Your task to perform on an android device: move a message to another label in the gmail app Image 0: 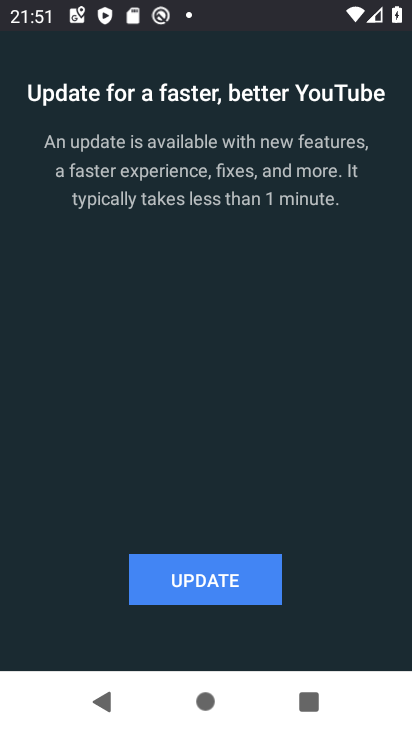
Step 0: press home button
Your task to perform on an android device: move a message to another label in the gmail app Image 1: 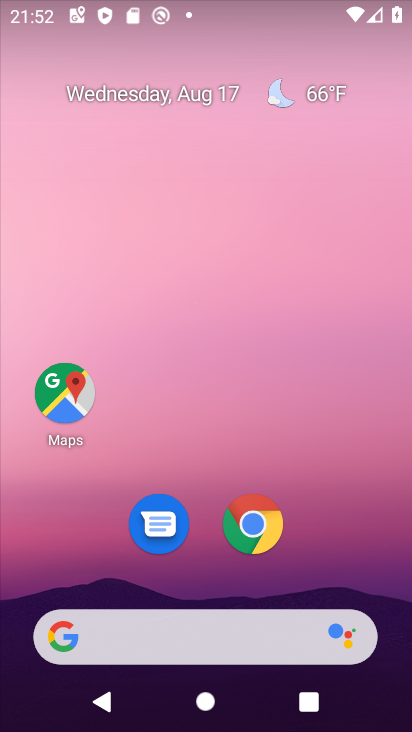
Step 1: drag from (326, 522) to (324, 0)
Your task to perform on an android device: move a message to another label in the gmail app Image 2: 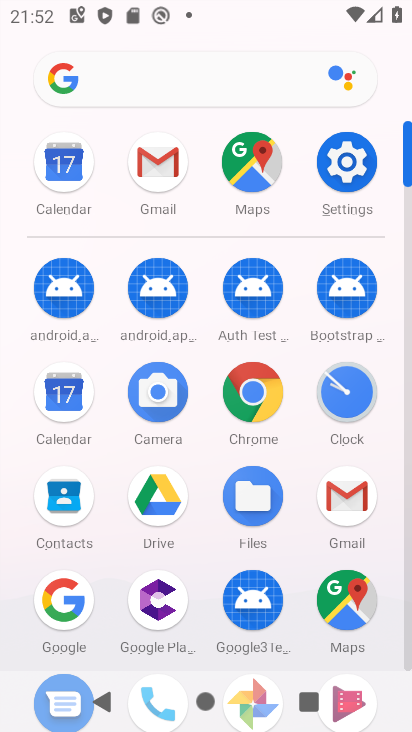
Step 2: click (165, 167)
Your task to perform on an android device: move a message to another label in the gmail app Image 3: 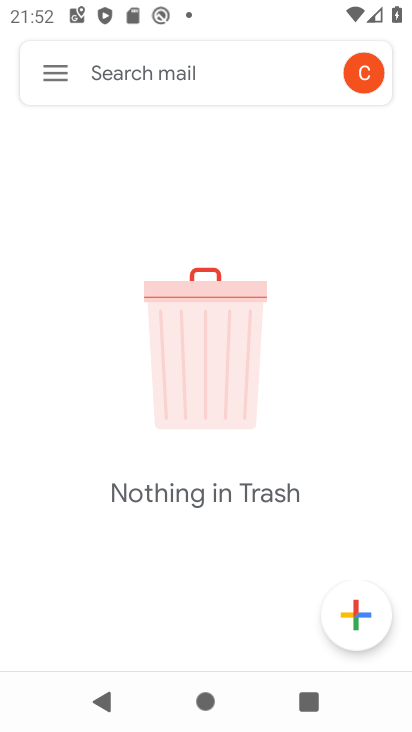
Step 3: click (57, 64)
Your task to perform on an android device: move a message to another label in the gmail app Image 4: 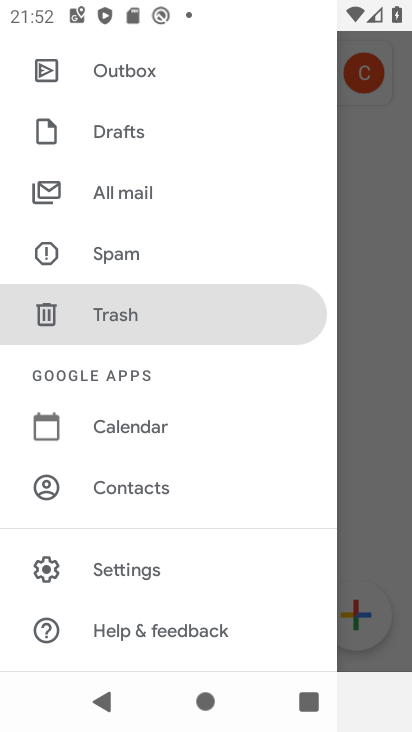
Step 4: click (131, 183)
Your task to perform on an android device: move a message to another label in the gmail app Image 5: 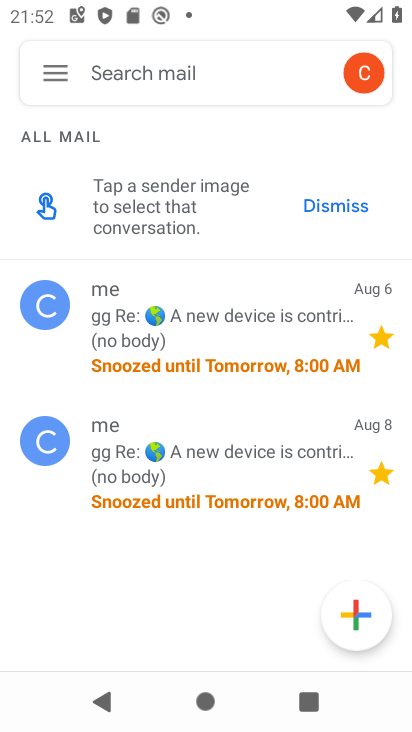
Step 5: click (267, 317)
Your task to perform on an android device: move a message to another label in the gmail app Image 6: 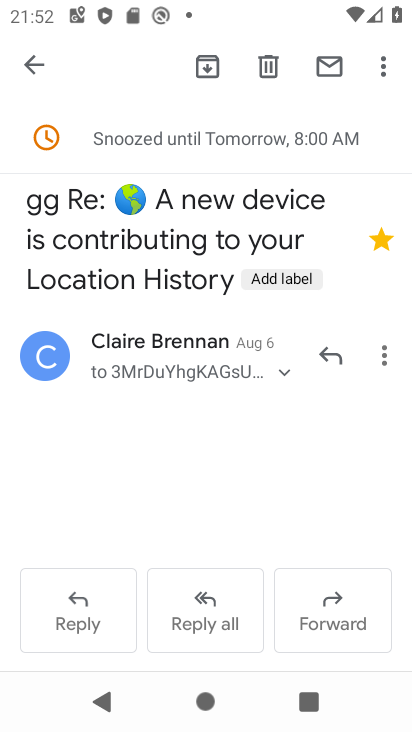
Step 6: click (382, 67)
Your task to perform on an android device: move a message to another label in the gmail app Image 7: 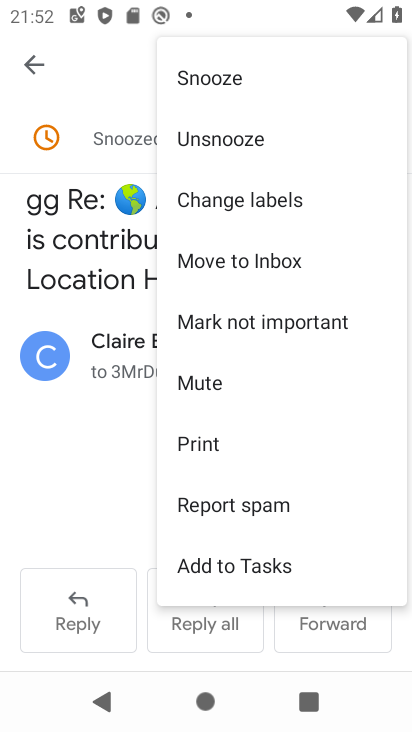
Step 7: click (292, 257)
Your task to perform on an android device: move a message to another label in the gmail app Image 8: 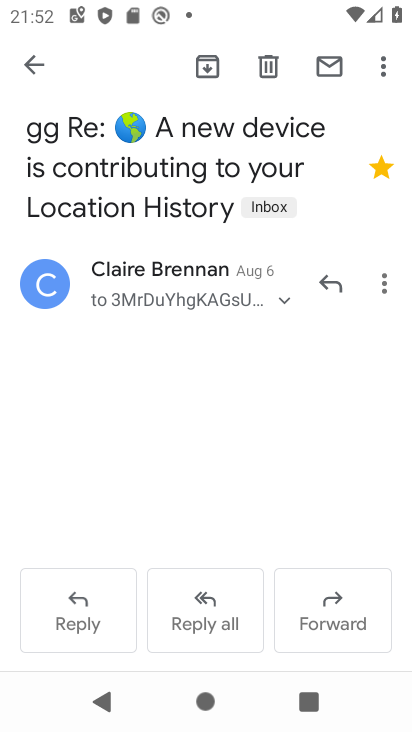
Step 8: task complete